Your task to perform on an android device: open a bookmark in the chrome app Image 0: 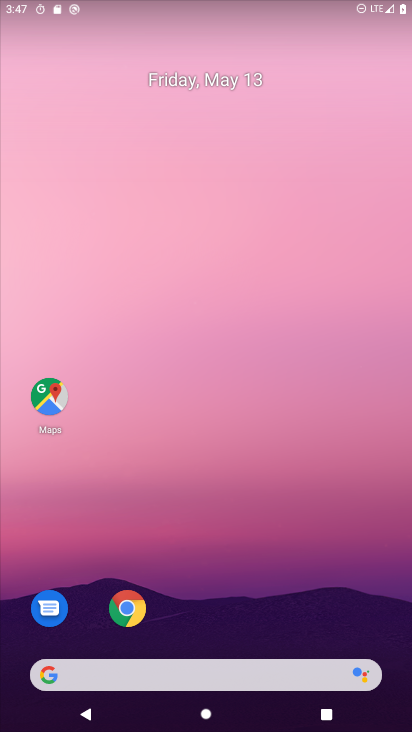
Step 0: click (112, 611)
Your task to perform on an android device: open a bookmark in the chrome app Image 1: 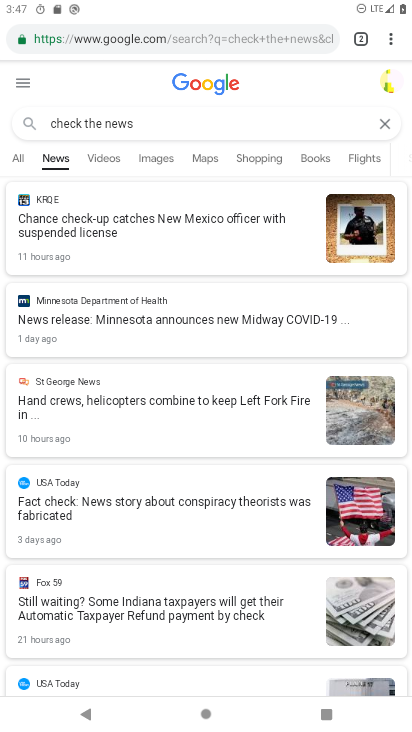
Step 1: task complete